Your task to perform on an android device: turn off smart reply in the gmail app Image 0: 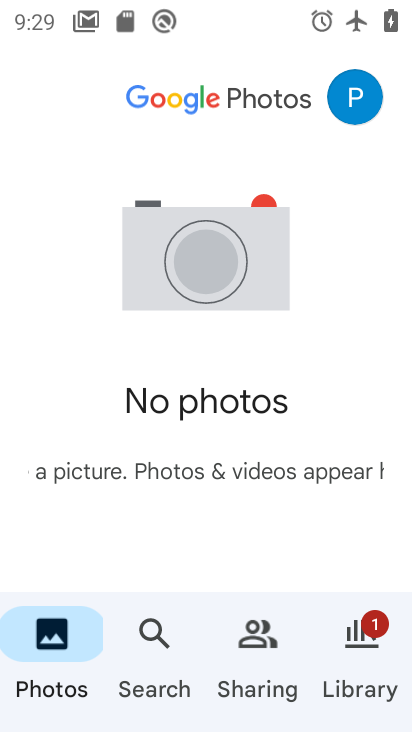
Step 0: press home button
Your task to perform on an android device: turn off smart reply in the gmail app Image 1: 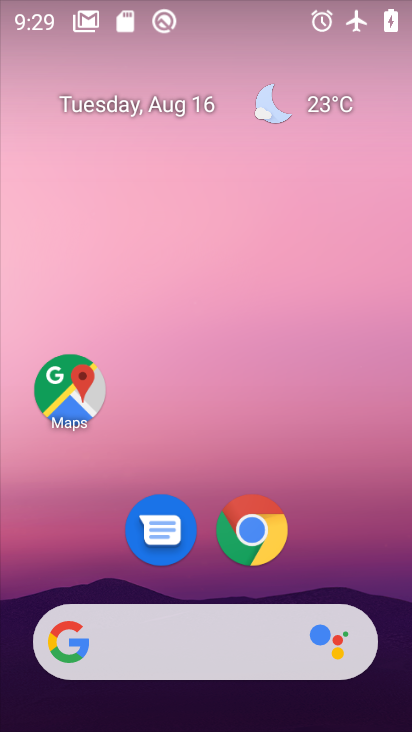
Step 1: drag from (321, 587) to (369, 131)
Your task to perform on an android device: turn off smart reply in the gmail app Image 2: 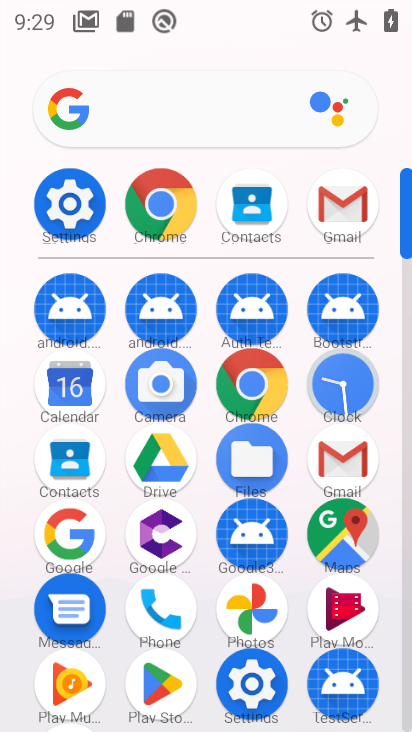
Step 2: click (331, 439)
Your task to perform on an android device: turn off smart reply in the gmail app Image 3: 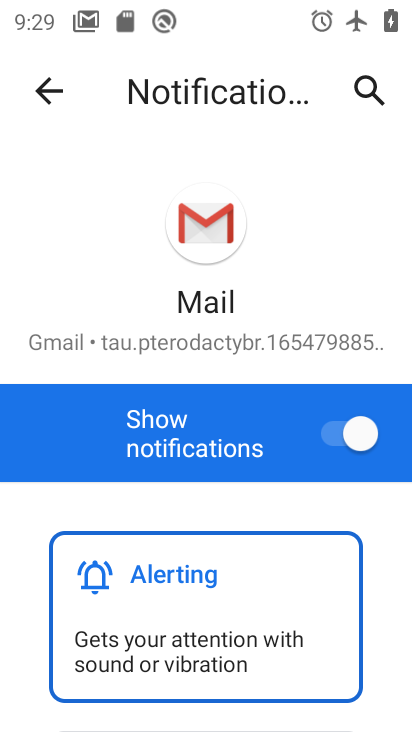
Step 3: click (40, 92)
Your task to perform on an android device: turn off smart reply in the gmail app Image 4: 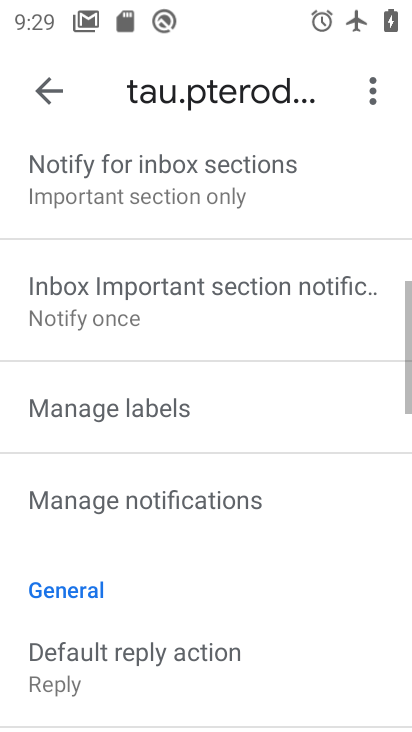
Step 4: click (40, 92)
Your task to perform on an android device: turn off smart reply in the gmail app Image 5: 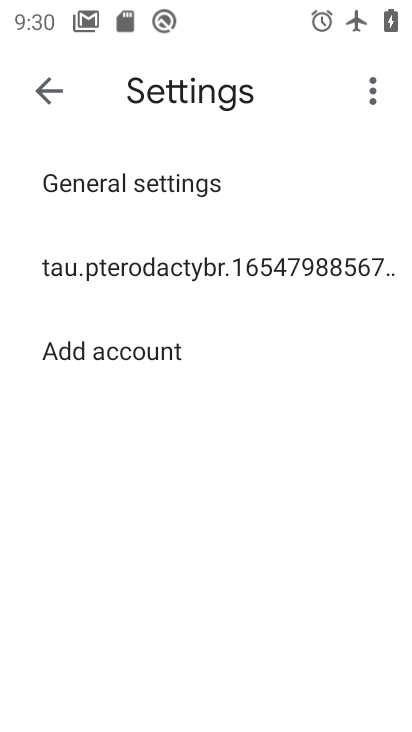
Step 5: click (40, 92)
Your task to perform on an android device: turn off smart reply in the gmail app Image 6: 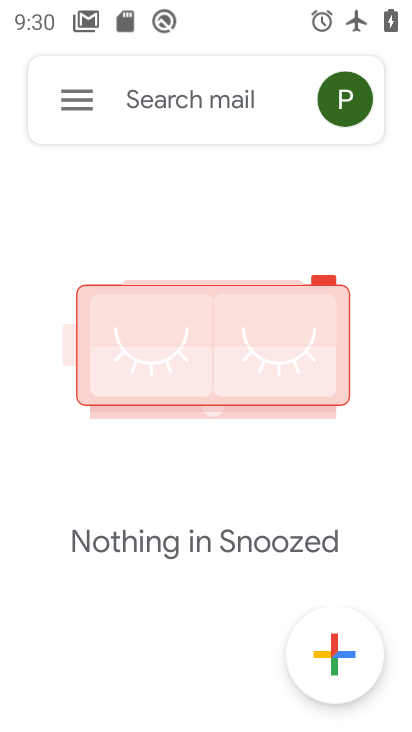
Step 6: click (56, 85)
Your task to perform on an android device: turn off smart reply in the gmail app Image 7: 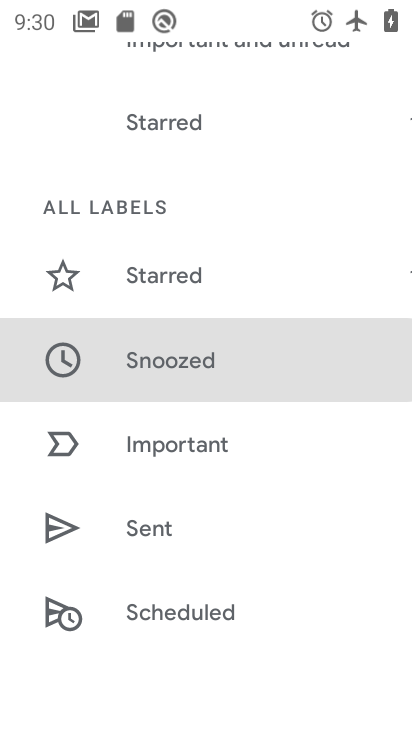
Step 7: drag from (132, 571) to (339, 158)
Your task to perform on an android device: turn off smart reply in the gmail app Image 8: 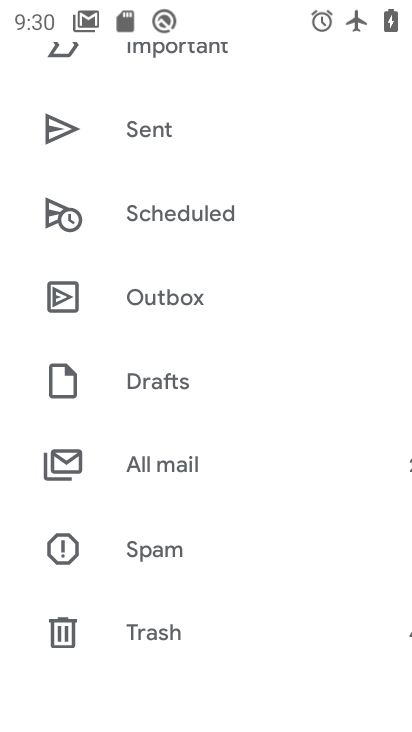
Step 8: drag from (188, 598) to (291, 304)
Your task to perform on an android device: turn off smart reply in the gmail app Image 9: 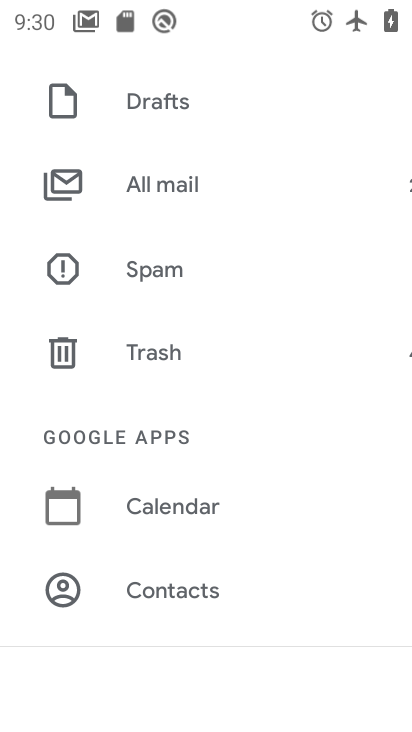
Step 9: drag from (193, 550) to (286, 335)
Your task to perform on an android device: turn off smart reply in the gmail app Image 10: 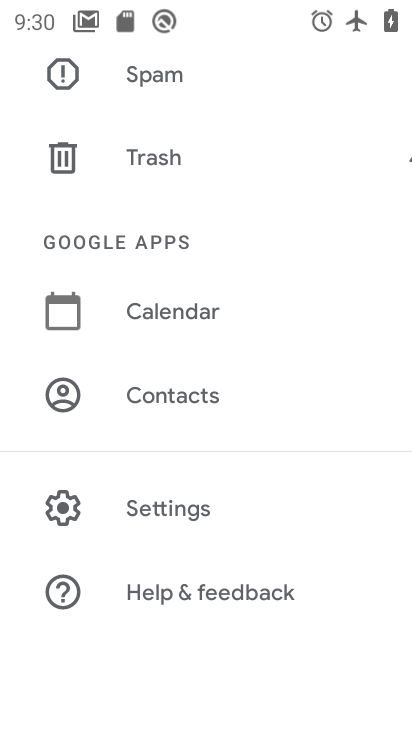
Step 10: click (195, 511)
Your task to perform on an android device: turn off smart reply in the gmail app Image 11: 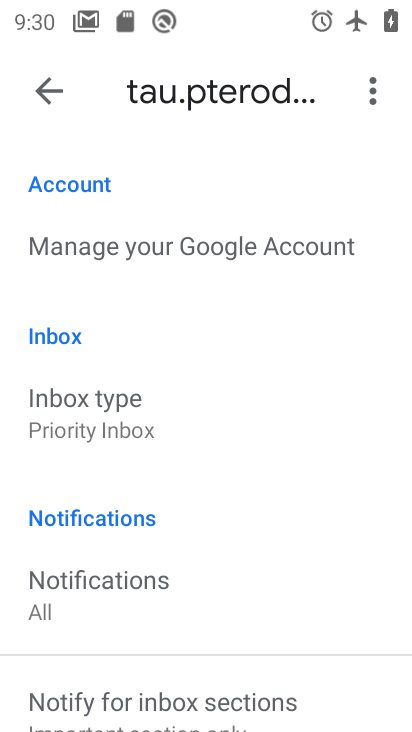
Step 11: drag from (267, 511) to (299, 255)
Your task to perform on an android device: turn off smart reply in the gmail app Image 12: 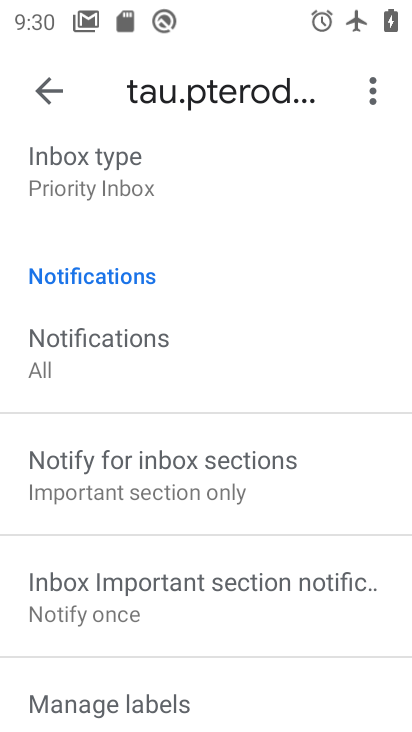
Step 12: drag from (273, 667) to (299, 385)
Your task to perform on an android device: turn off smart reply in the gmail app Image 13: 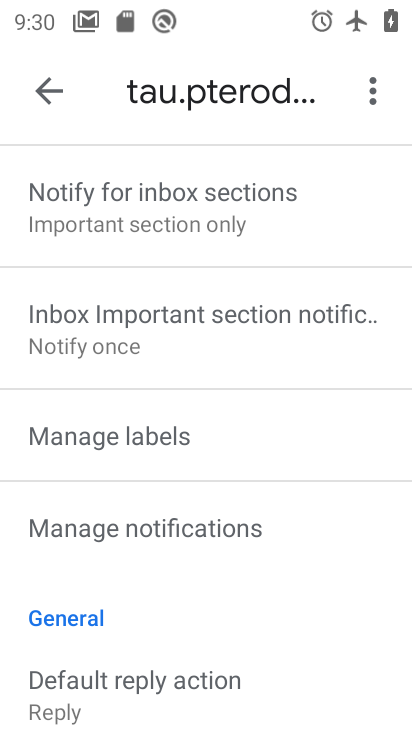
Step 13: drag from (329, 701) to (338, 316)
Your task to perform on an android device: turn off smart reply in the gmail app Image 14: 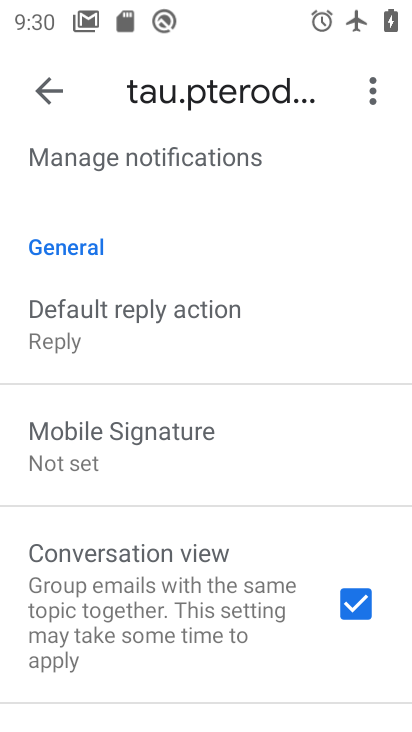
Step 14: drag from (271, 540) to (305, 318)
Your task to perform on an android device: turn off smart reply in the gmail app Image 15: 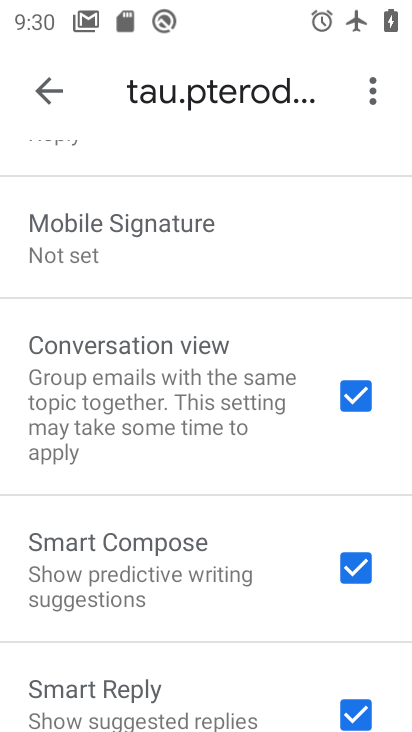
Step 15: click (352, 712)
Your task to perform on an android device: turn off smart reply in the gmail app Image 16: 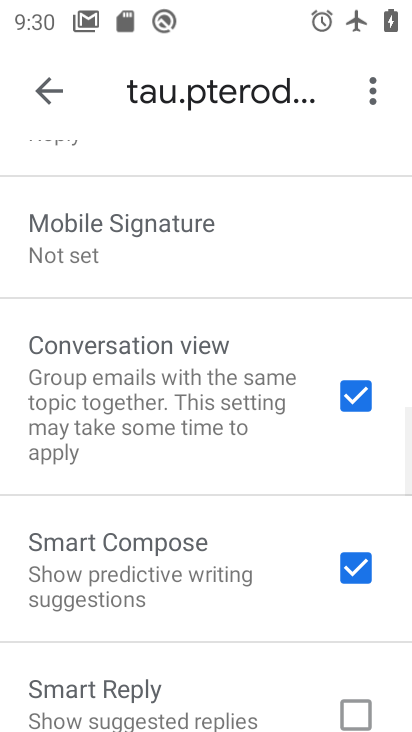
Step 16: task complete